Your task to perform on an android device: Go to battery settings Image 0: 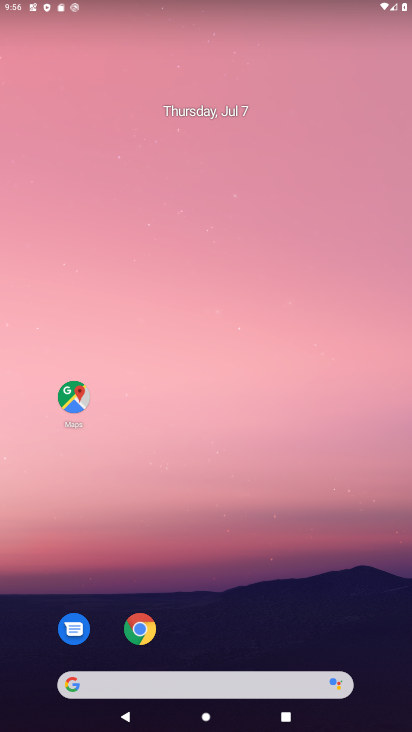
Step 0: drag from (231, 656) to (246, 32)
Your task to perform on an android device: Go to battery settings Image 1: 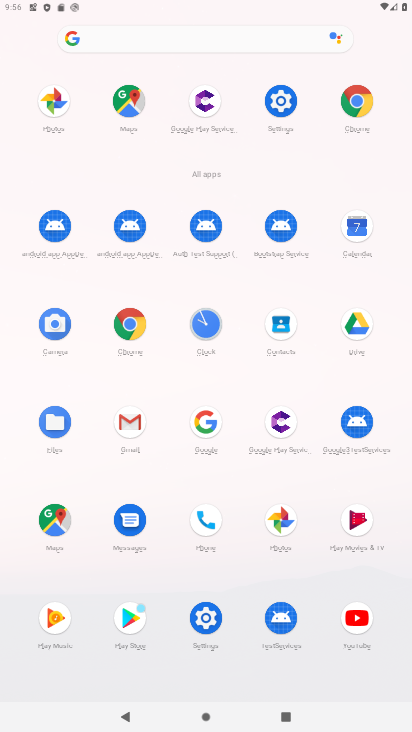
Step 1: click (282, 88)
Your task to perform on an android device: Go to battery settings Image 2: 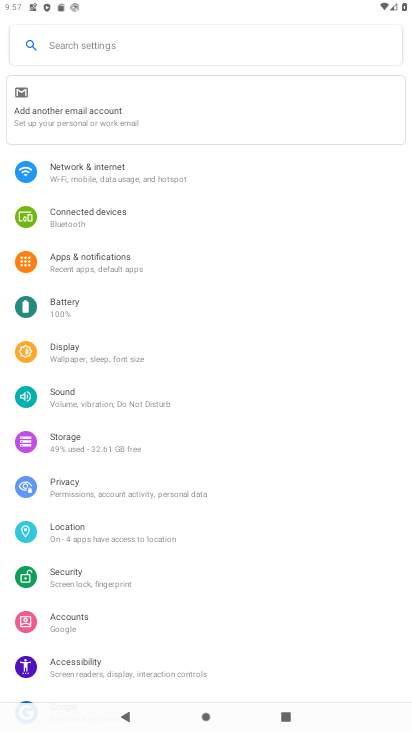
Step 2: click (55, 299)
Your task to perform on an android device: Go to battery settings Image 3: 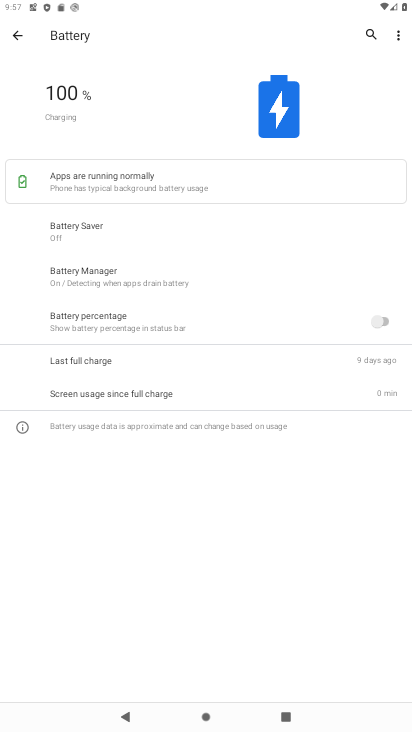
Step 3: task complete